Your task to perform on an android device: toggle notification dots Image 0: 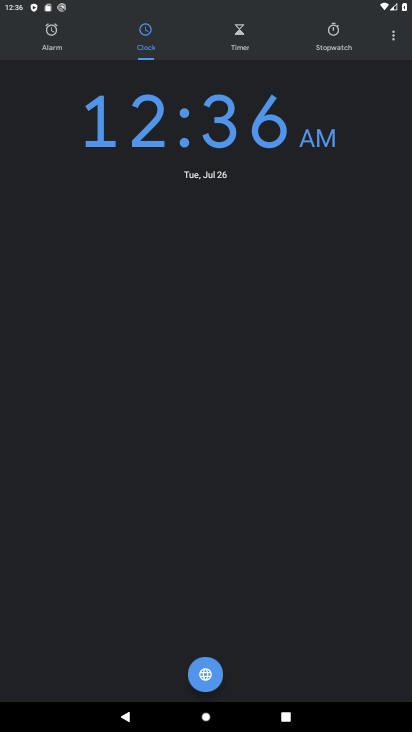
Step 0: press home button
Your task to perform on an android device: toggle notification dots Image 1: 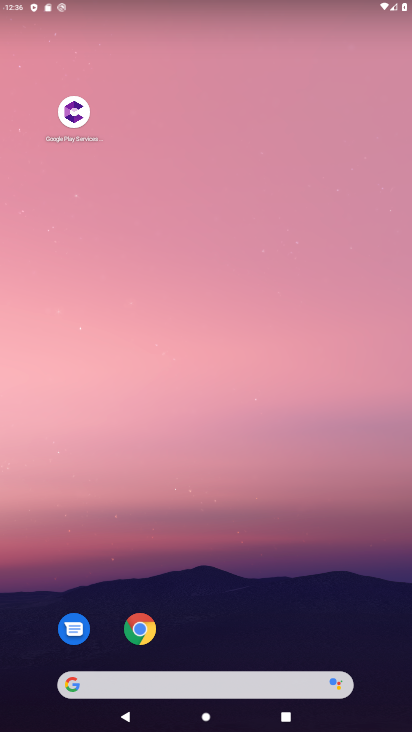
Step 1: drag from (397, 648) to (339, 44)
Your task to perform on an android device: toggle notification dots Image 2: 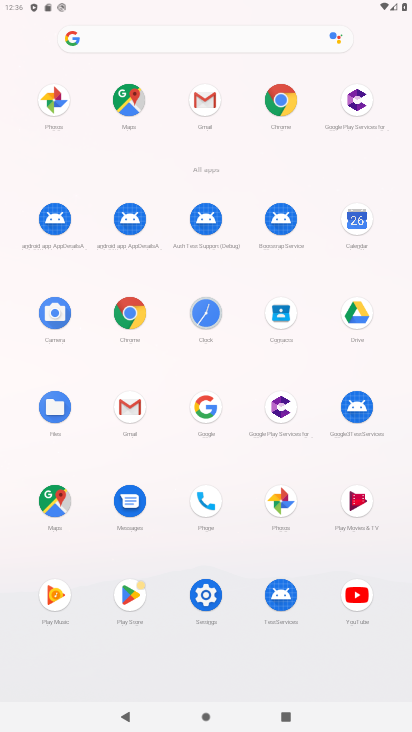
Step 2: click (206, 614)
Your task to perform on an android device: toggle notification dots Image 3: 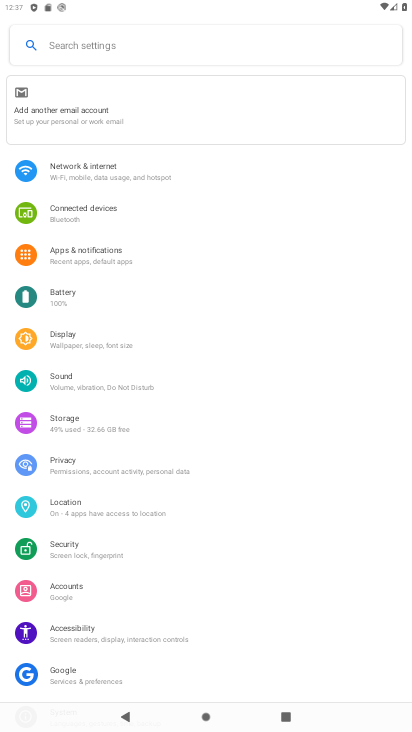
Step 3: click (79, 259)
Your task to perform on an android device: toggle notification dots Image 4: 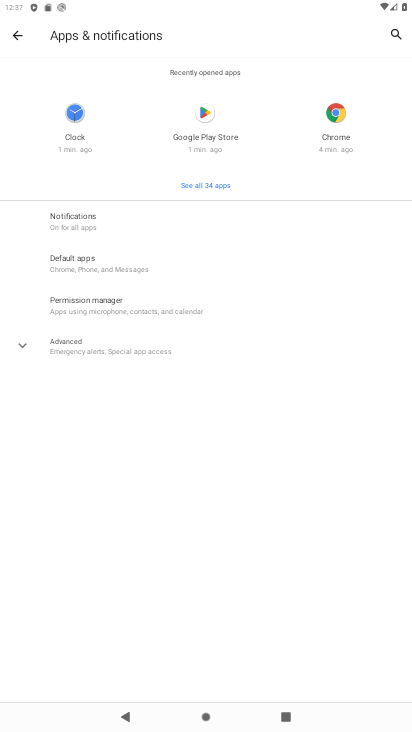
Step 4: click (47, 219)
Your task to perform on an android device: toggle notification dots Image 5: 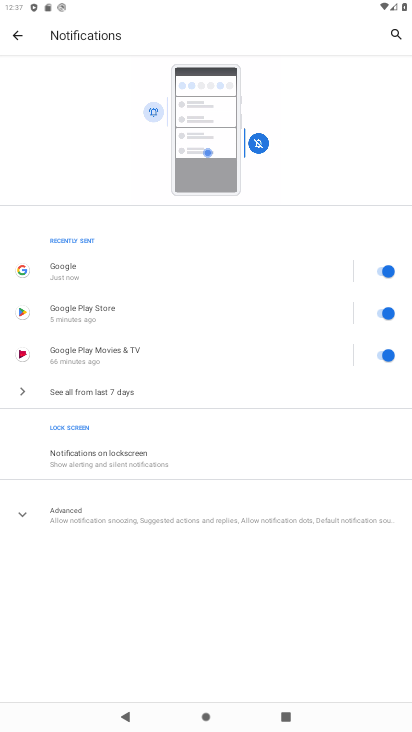
Step 5: click (37, 515)
Your task to perform on an android device: toggle notification dots Image 6: 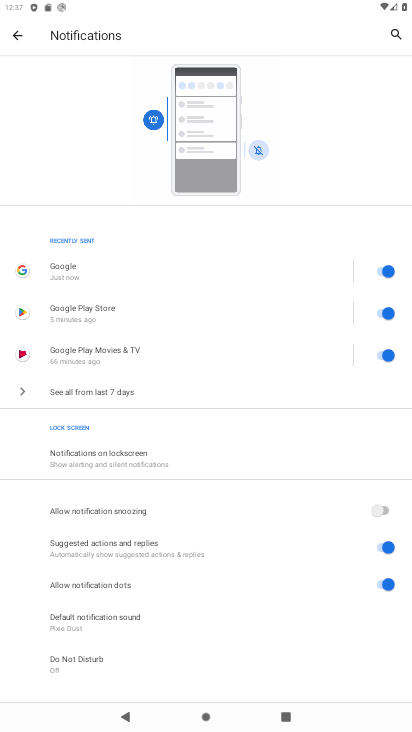
Step 6: click (376, 583)
Your task to perform on an android device: toggle notification dots Image 7: 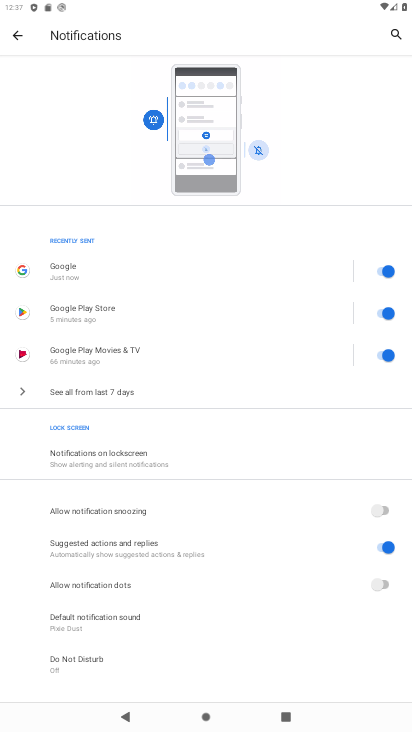
Step 7: task complete